Your task to perform on an android device: move a message to another label in the gmail app Image 0: 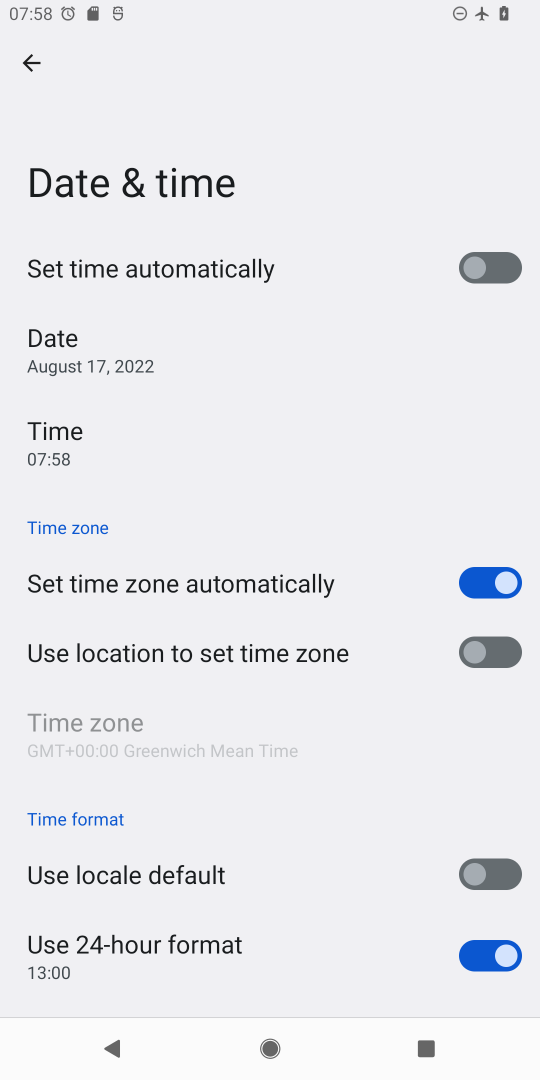
Step 0: press home button
Your task to perform on an android device: move a message to another label in the gmail app Image 1: 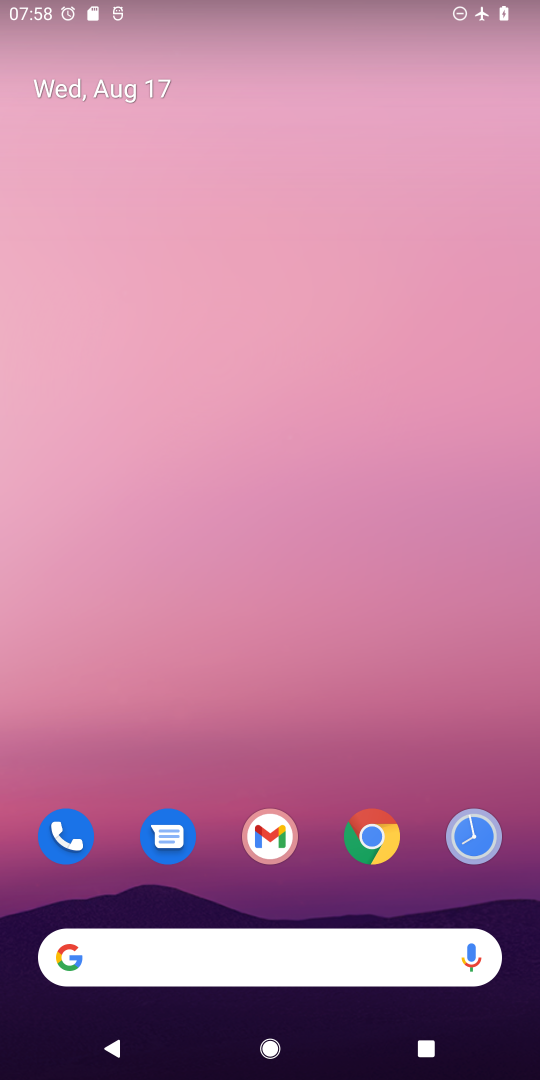
Step 1: drag from (233, 825) to (250, 283)
Your task to perform on an android device: move a message to another label in the gmail app Image 2: 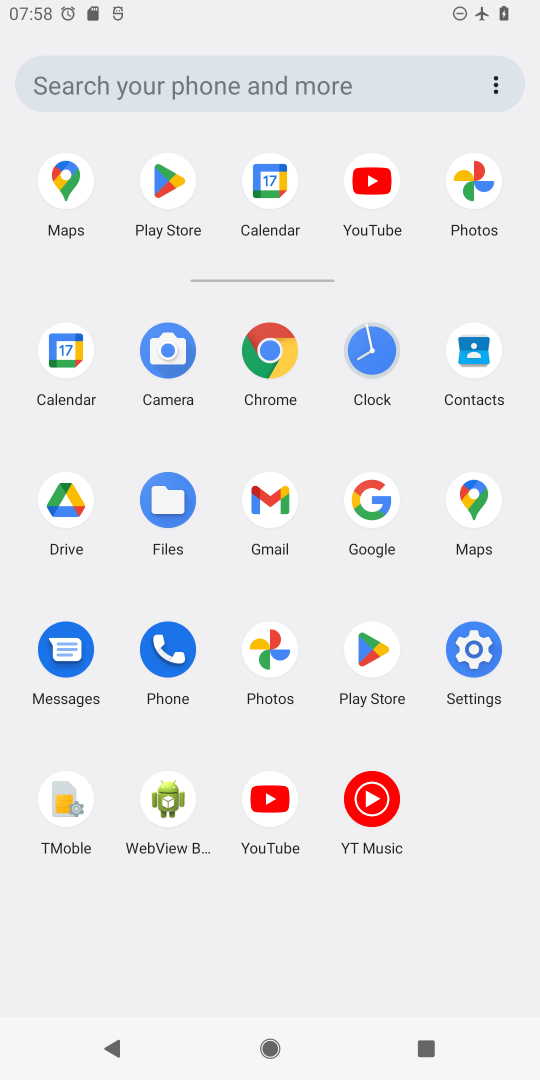
Step 2: click (270, 483)
Your task to perform on an android device: move a message to another label in the gmail app Image 3: 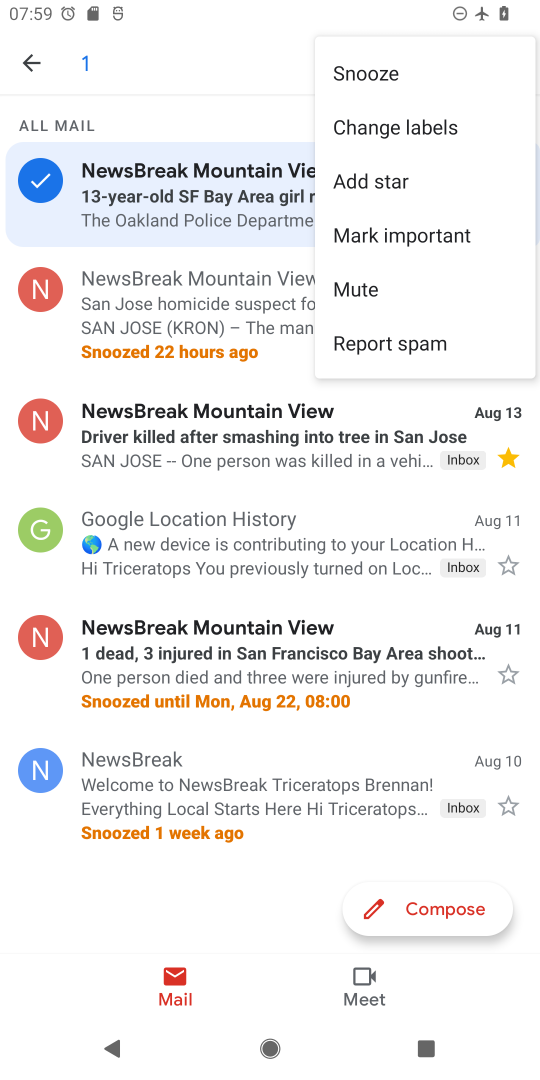
Step 3: task complete